Your task to perform on an android device: clear history in the chrome app Image 0: 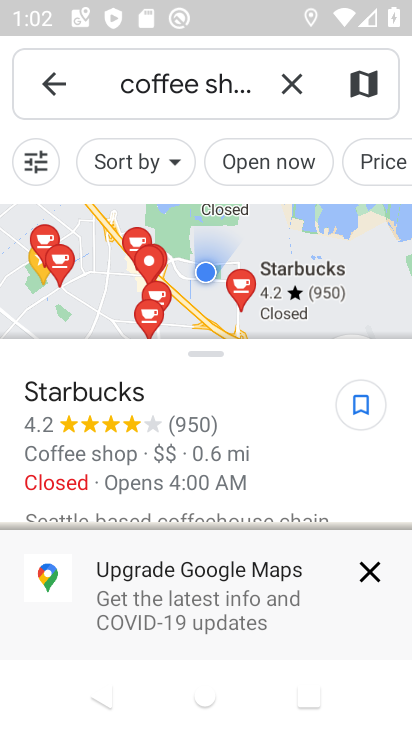
Step 0: press home button
Your task to perform on an android device: clear history in the chrome app Image 1: 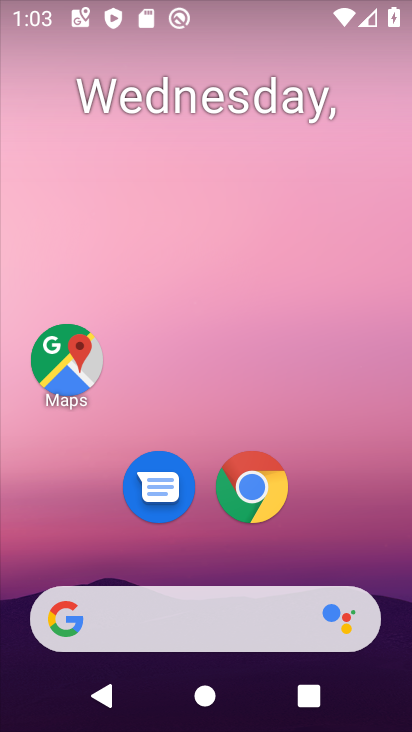
Step 1: drag from (327, 543) to (343, 129)
Your task to perform on an android device: clear history in the chrome app Image 2: 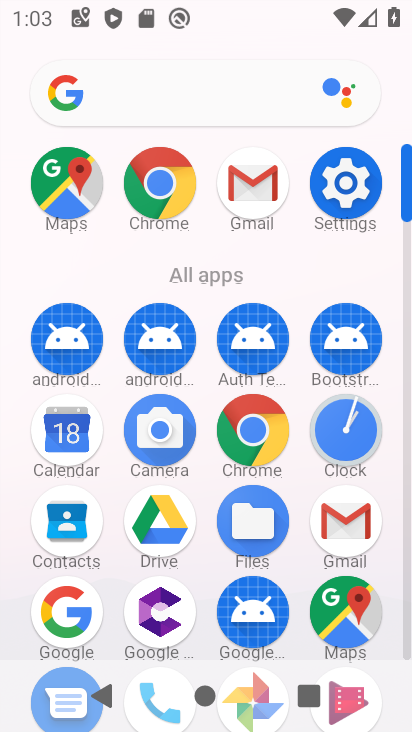
Step 2: click (252, 429)
Your task to perform on an android device: clear history in the chrome app Image 3: 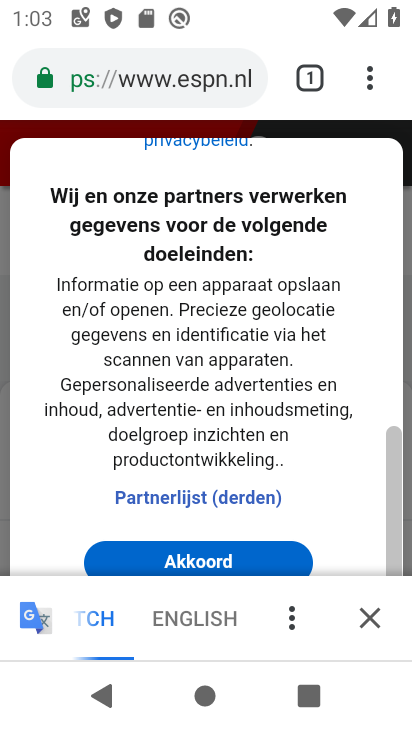
Step 3: click (378, 87)
Your task to perform on an android device: clear history in the chrome app Image 4: 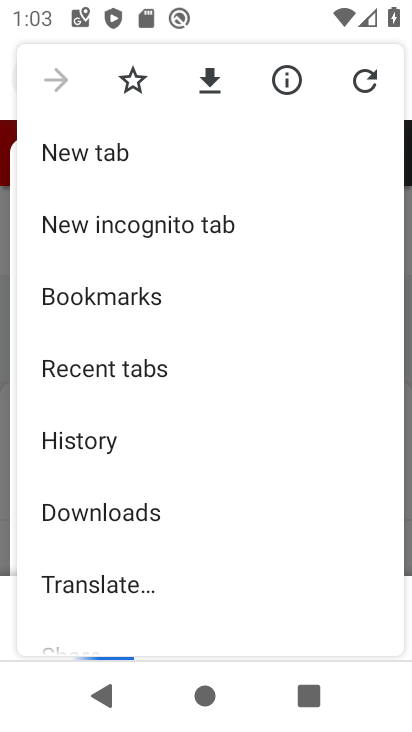
Step 4: click (103, 429)
Your task to perform on an android device: clear history in the chrome app Image 5: 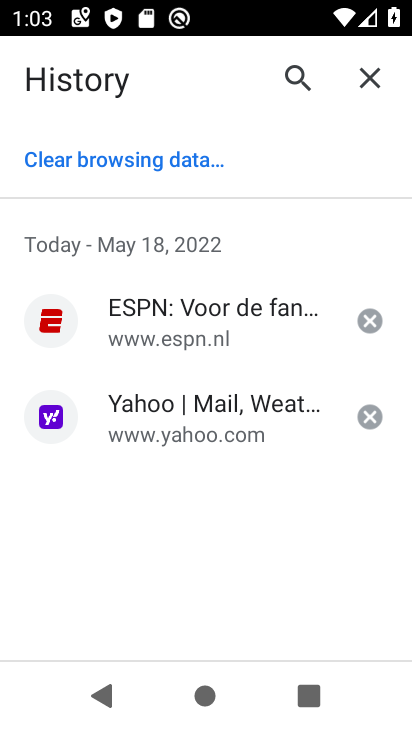
Step 5: click (187, 149)
Your task to perform on an android device: clear history in the chrome app Image 6: 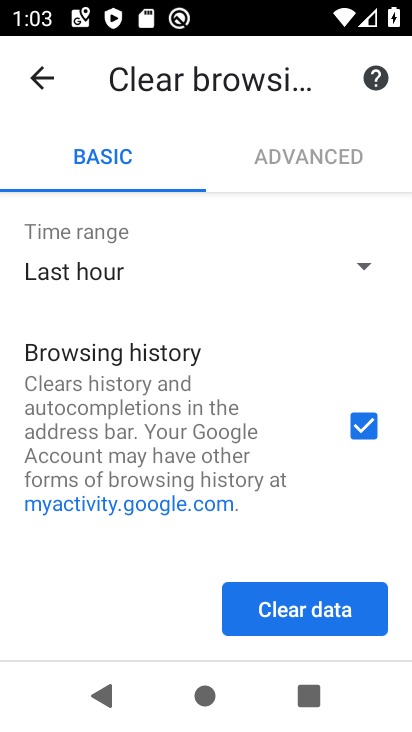
Step 6: click (332, 589)
Your task to perform on an android device: clear history in the chrome app Image 7: 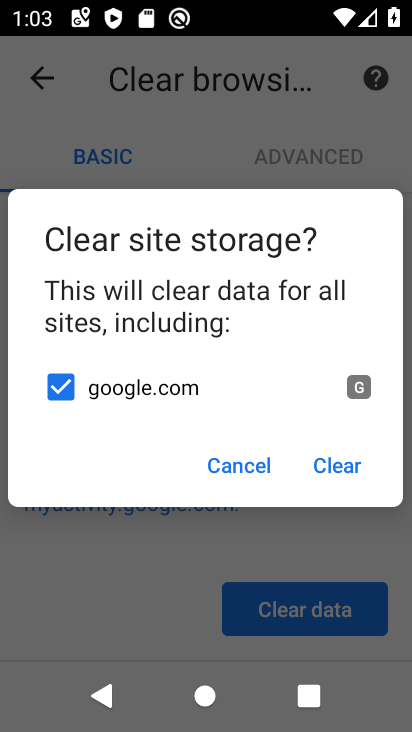
Step 7: click (353, 459)
Your task to perform on an android device: clear history in the chrome app Image 8: 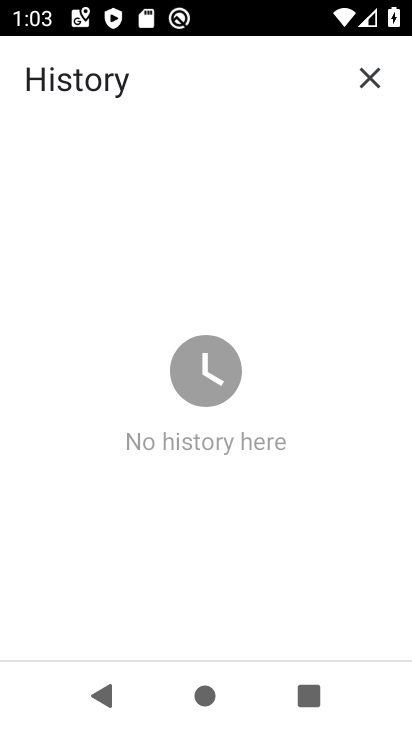
Step 8: task complete